Your task to perform on an android device: Open wifi settings Image 0: 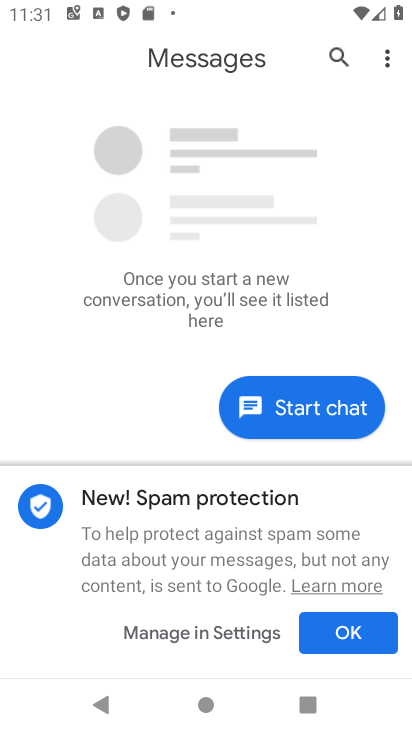
Step 0: press home button
Your task to perform on an android device: Open wifi settings Image 1: 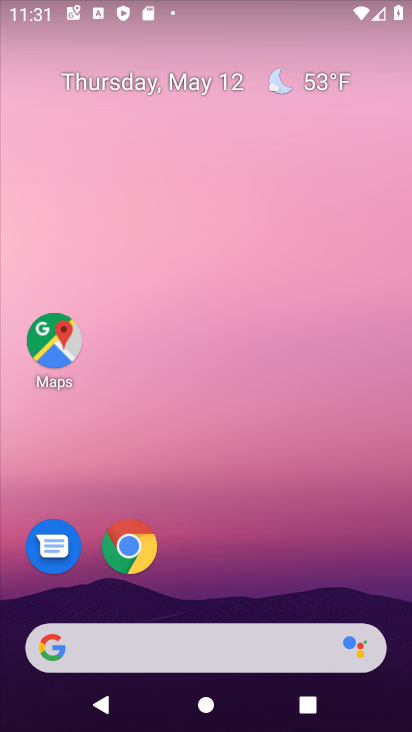
Step 1: drag from (283, 684) to (322, 224)
Your task to perform on an android device: Open wifi settings Image 2: 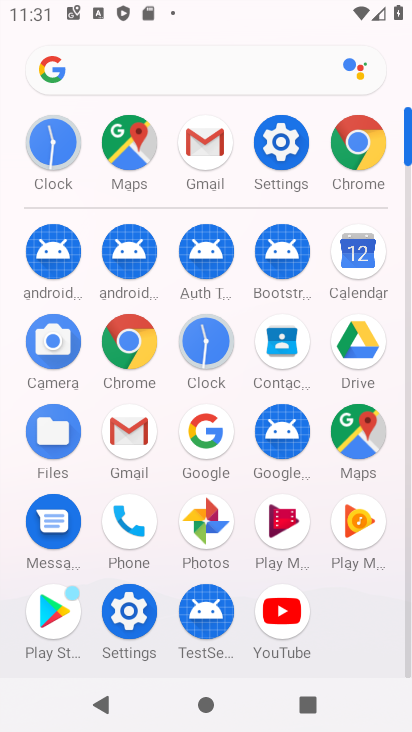
Step 2: click (277, 157)
Your task to perform on an android device: Open wifi settings Image 3: 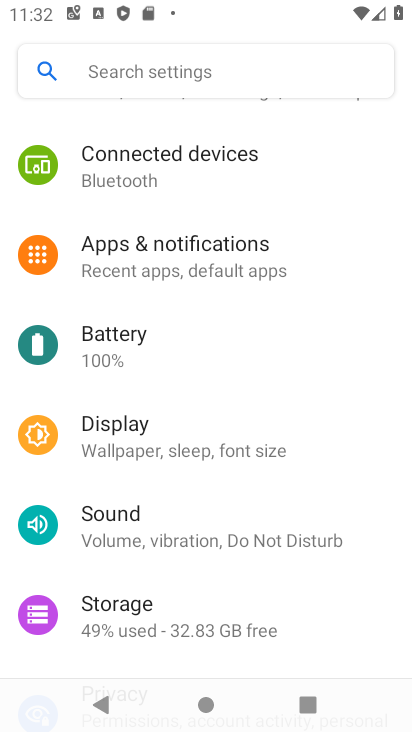
Step 3: drag from (128, 244) to (112, 470)
Your task to perform on an android device: Open wifi settings Image 4: 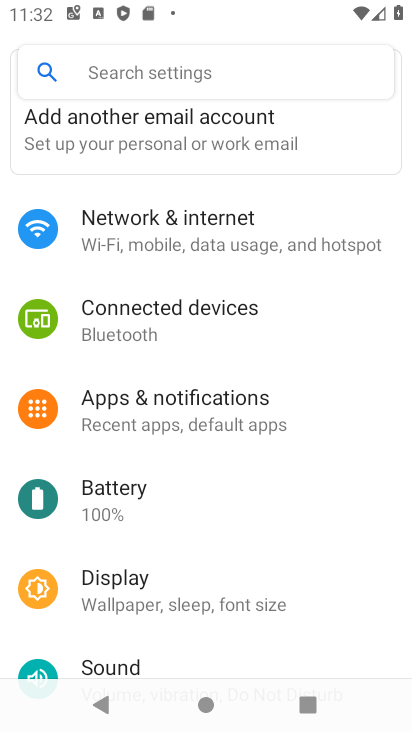
Step 4: click (136, 245)
Your task to perform on an android device: Open wifi settings Image 5: 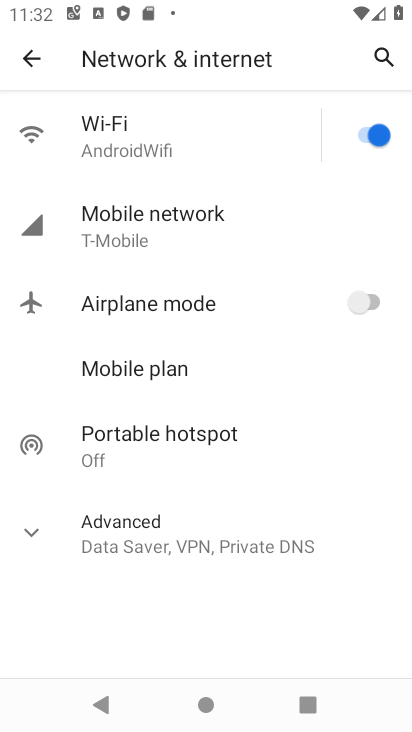
Step 5: click (111, 146)
Your task to perform on an android device: Open wifi settings Image 6: 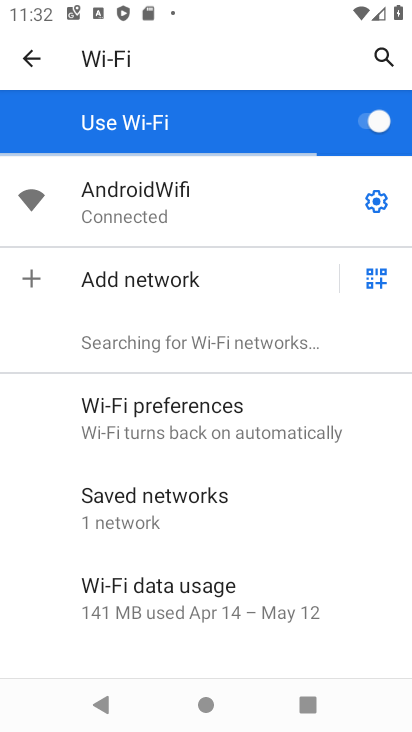
Step 6: task complete